Your task to perform on an android device: toggle improve location accuracy Image 0: 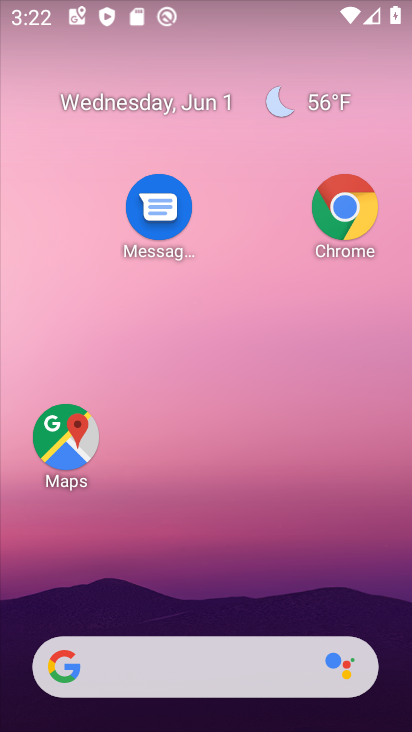
Step 0: drag from (139, 617) to (279, 107)
Your task to perform on an android device: toggle improve location accuracy Image 1: 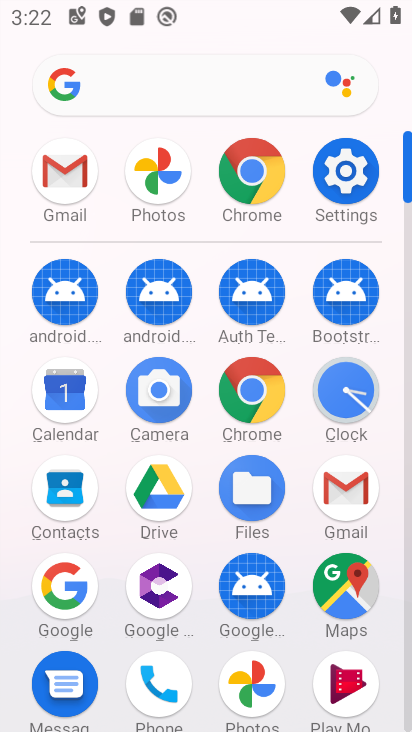
Step 1: click (344, 181)
Your task to perform on an android device: toggle improve location accuracy Image 2: 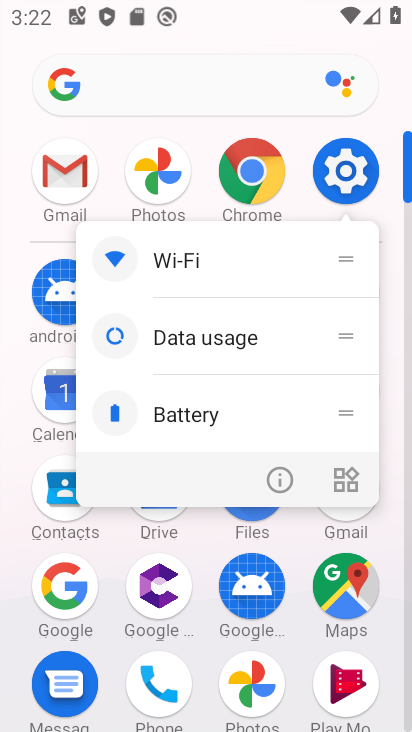
Step 2: click (297, 486)
Your task to perform on an android device: toggle improve location accuracy Image 3: 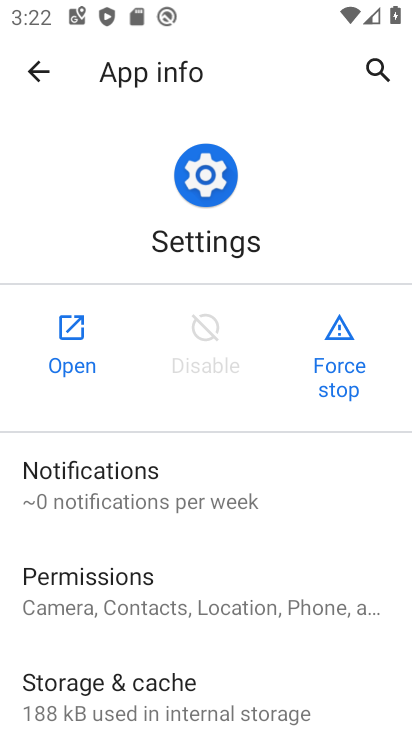
Step 3: click (86, 349)
Your task to perform on an android device: toggle improve location accuracy Image 4: 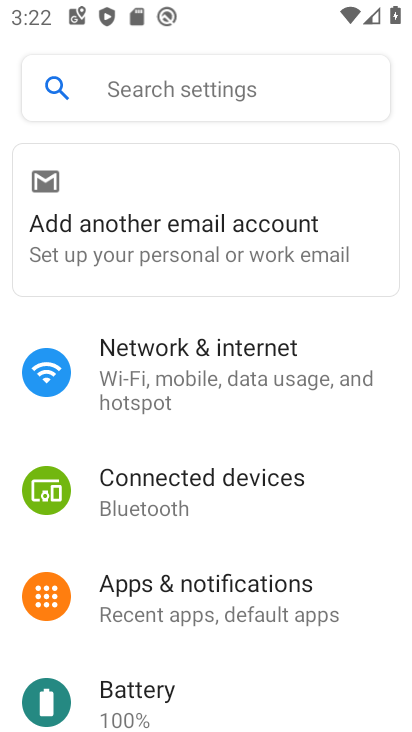
Step 4: drag from (174, 558) to (205, 247)
Your task to perform on an android device: toggle improve location accuracy Image 5: 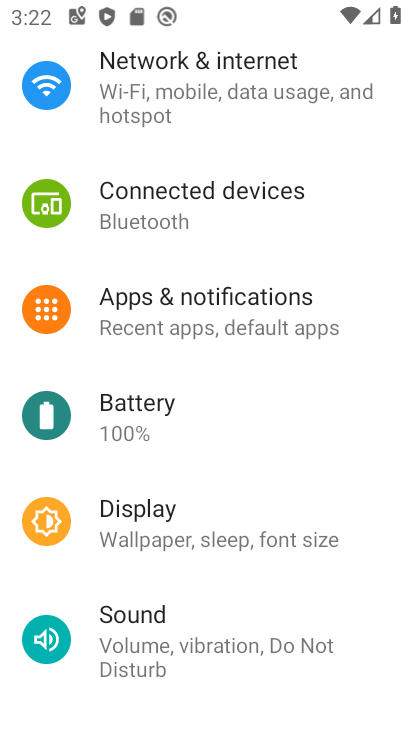
Step 5: drag from (207, 489) to (304, 47)
Your task to perform on an android device: toggle improve location accuracy Image 6: 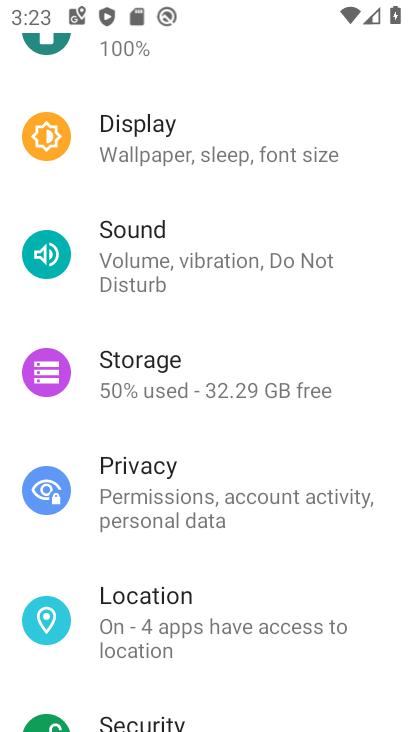
Step 6: drag from (220, 426) to (243, 108)
Your task to perform on an android device: toggle improve location accuracy Image 7: 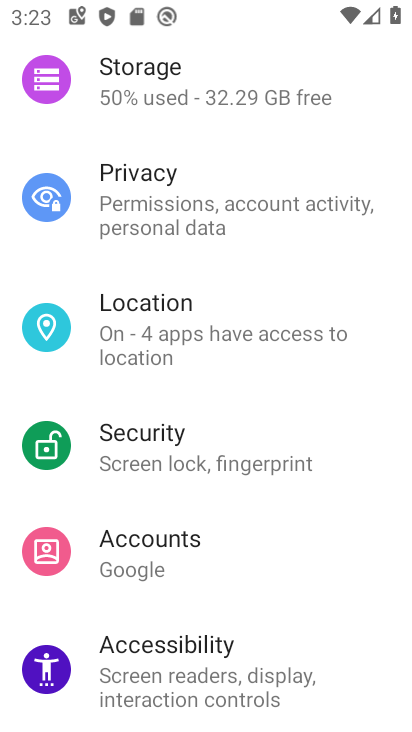
Step 7: click (227, 323)
Your task to perform on an android device: toggle improve location accuracy Image 8: 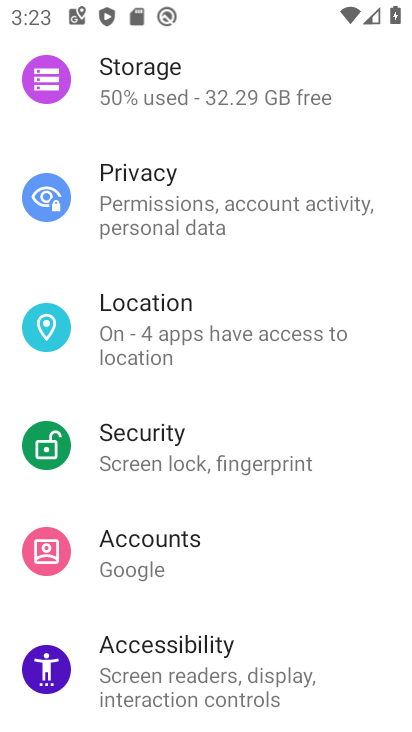
Step 8: click (226, 322)
Your task to perform on an android device: toggle improve location accuracy Image 9: 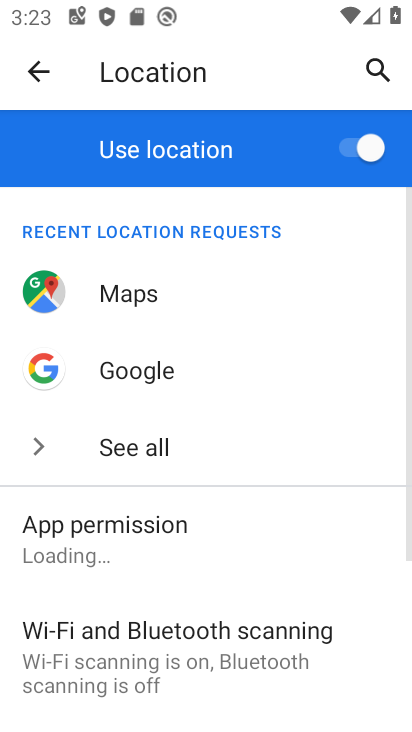
Step 9: drag from (209, 591) to (231, 108)
Your task to perform on an android device: toggle improve location accuracy Image 10: 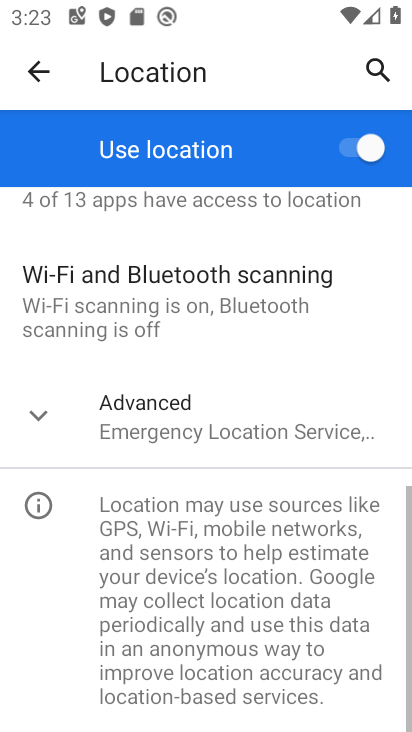
Step 10: click (167, 410)
Your task to perform on an android device: toggle improve location accuracy Image 11: 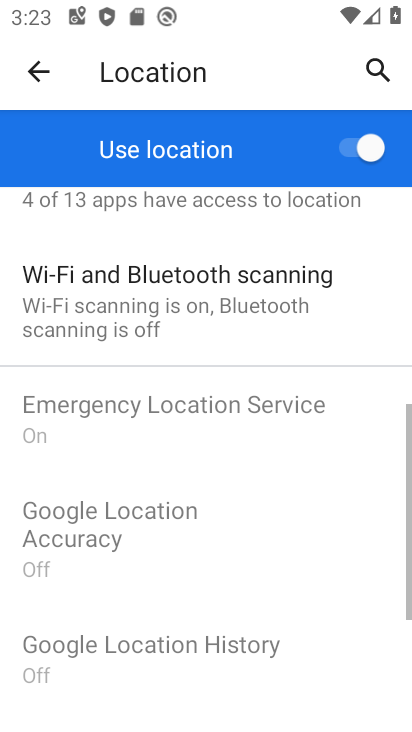
Step 11: drag from (217, 473) to (354, 103)
Your task to perform on an android device: toggle improve location accuracy Image 12: 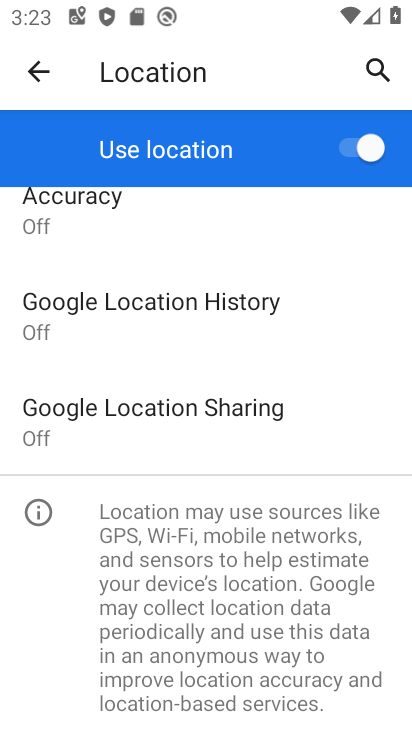
Step 12: click (86, 224)
Your task to perform on an android device: toggle improve location accuracy Image 13: 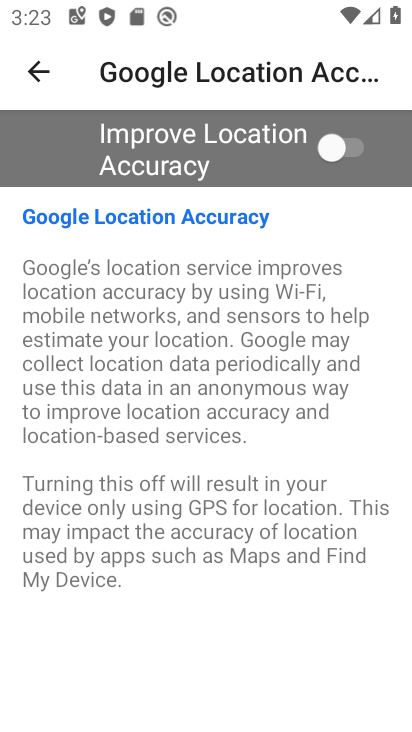
Step 13: click (317, 163)
Your task to perform on an android device: toggle improve location accuracy Image 14: 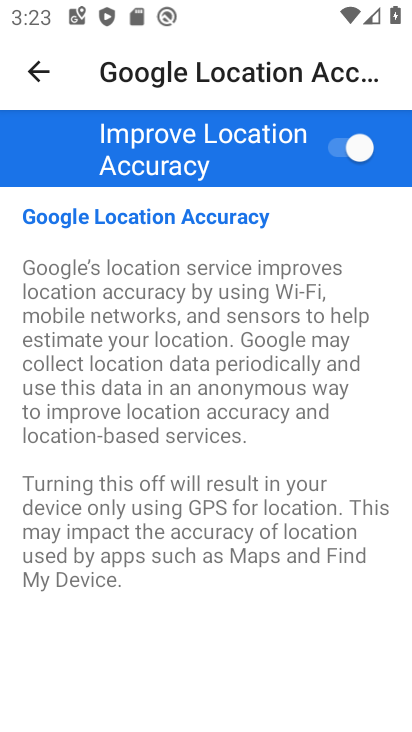
Step 14: task complete